Your task to perform on an android device: Search for Mexican restaurants on Maps Image 0: 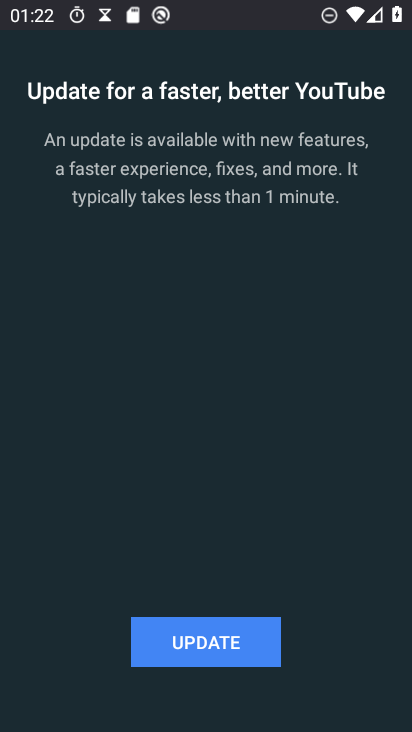
Step 0: press home button
Your task to perform on an android device: Search for Mexican restaurants on Maps Image 1: 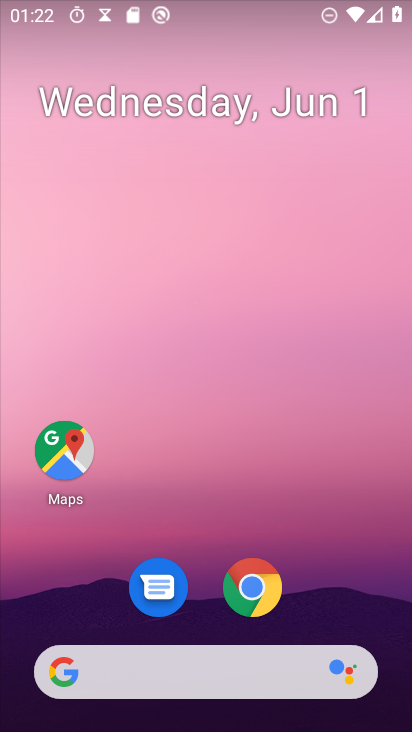
Step 1: click (63, 455)
Your task to perform on an android device: Search for Mexican restaurants on Maps Image 2: 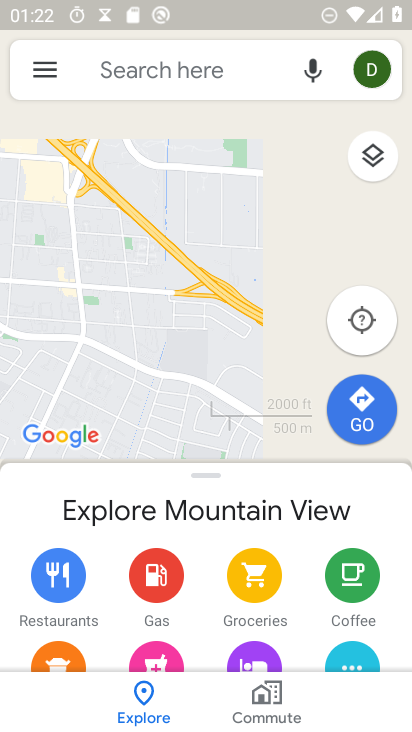
Step 2: click (145, 78)
Your task to perform on an android device: Search for Mexican restaurants on Maps Image 3: 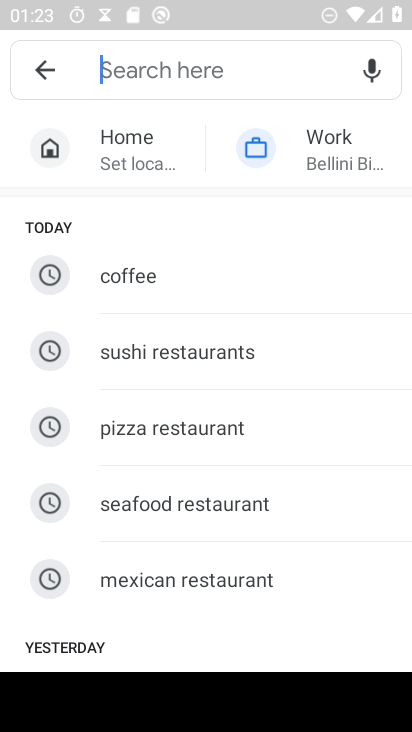
Step 3: type "mexican restaurants"
Your task to perform on an android device: Search for Mexican restaurants on Maps Image 4: 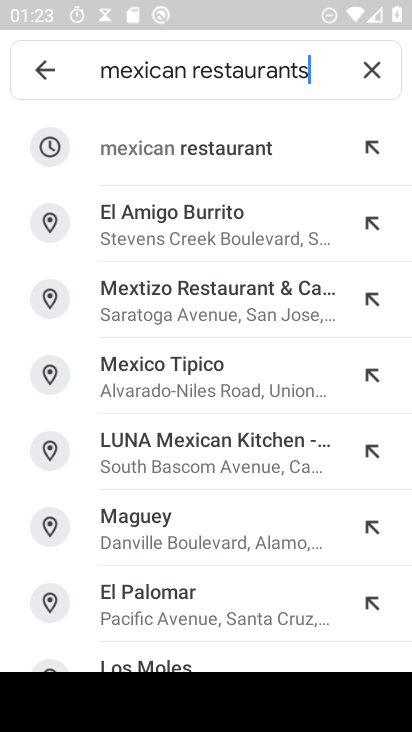
Step 4: click (212, 135)
Your task to perform on an android device: Search for Mexican restaurants on Maps Image 5: 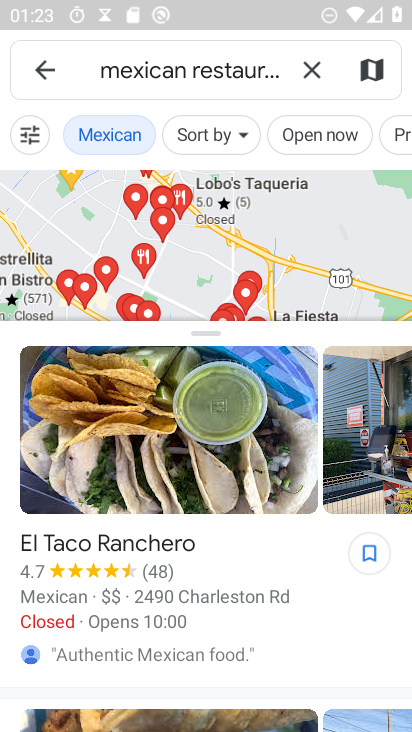
Step 5: task complete